Your task to perform on an android device: find snoozed emails in the gmail app Image 0: 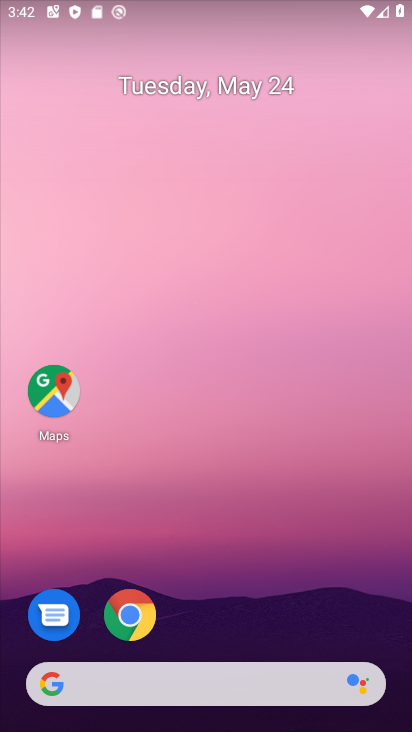
Step 0: drag from (223, 722) to (171, 239)
Your task to perform on an android device: find snoozed emails in the gmail app Image 1: 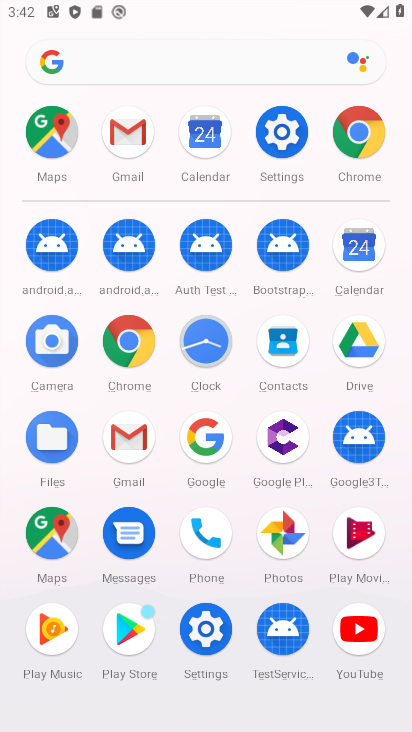
Step 1: click (129, 434)
Your task to perform on an android device: find snoozed emails in the gmail app Image 2: 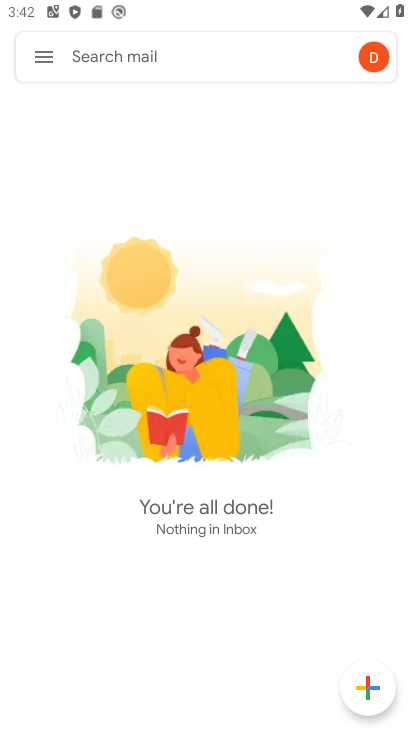
Step 2: click (37, 60)
Your task to perform on an android device: find snoozed emails in the gmail app Image 3: 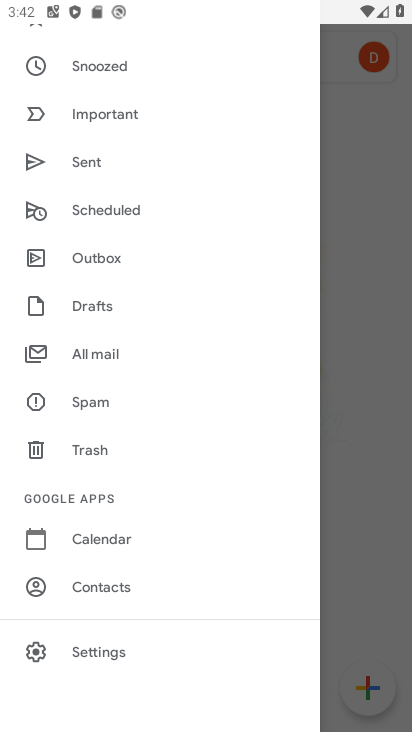
Step 3: drag from (115, 172) to (119, 455)
Your task to perform on an android device: find snoozed emails in the gmail app Image 4: 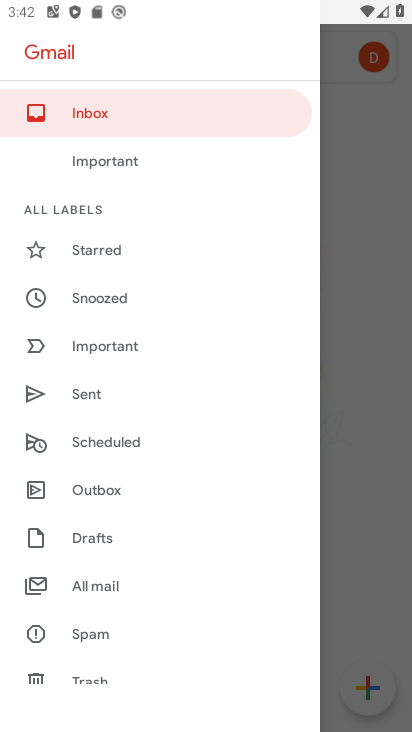
Step 4: click (100, 296)
Your task to perform on an android device: find snoozed emails in the gmail app Image 5: 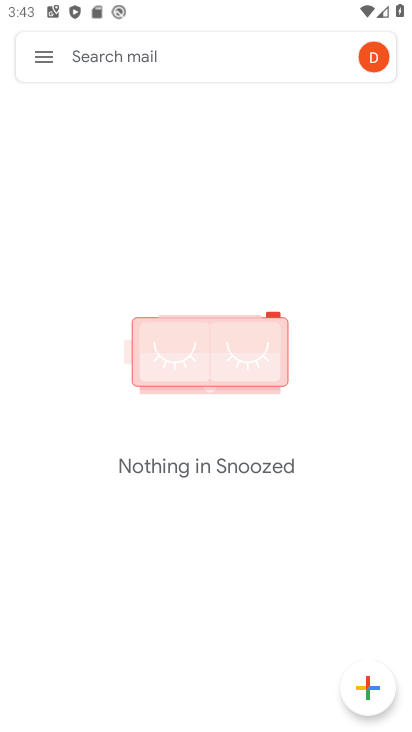
Step 5: task complete